Your task to perform on an android device: Search for seafood restaurants on Google Maps Image 0: 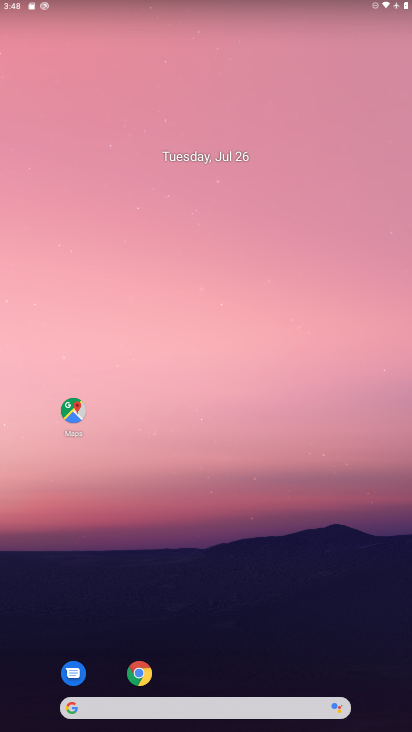
Step 0: click (77, 420)
Your task to perform on an android device: Search for seafood restaurants on Google Maps Image 1: 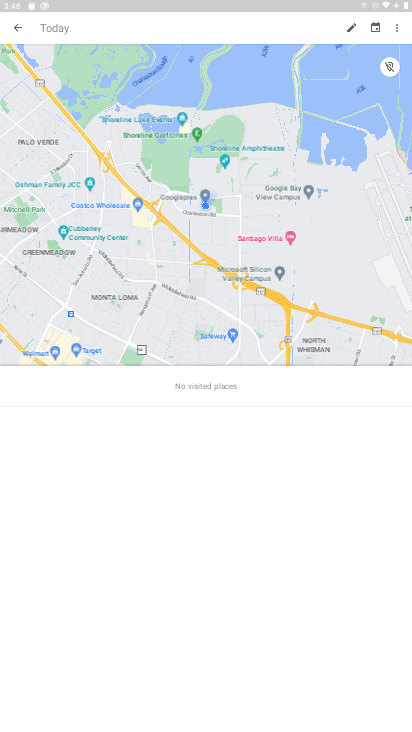
Step 1: click (20, 32)
Your task to perform on an android device: Search for seafood restaurants on Google Maps Image 2: 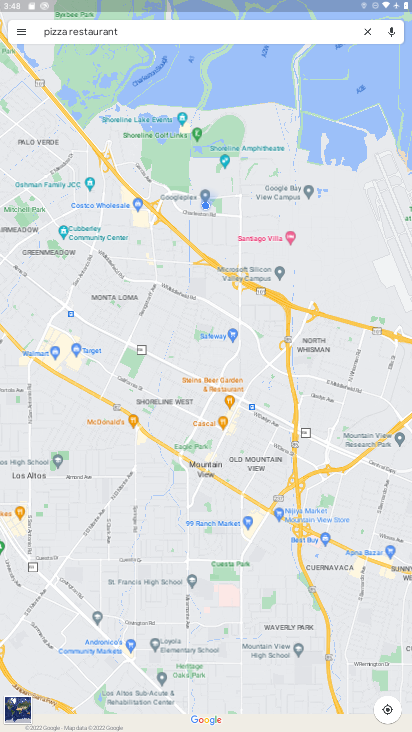
Step 2: click (117, 33)
Your task to perform on an android device: Search for seafood restaurants on Google Maps Image 3: 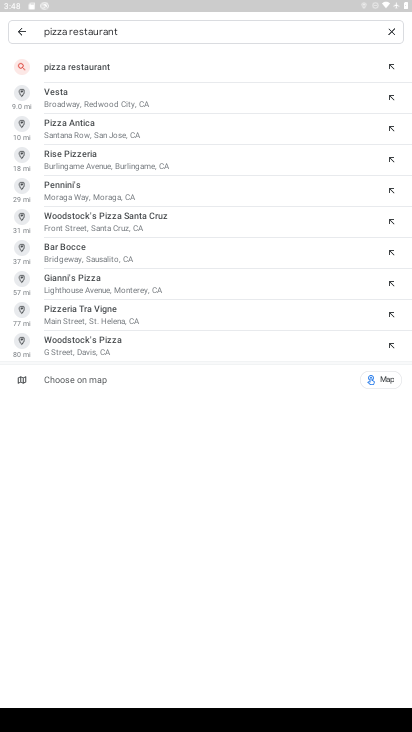
Step 3: click (399, 29)
Your task to perform on an android device: Search for seafood restaurants on Google Maps Image 4: 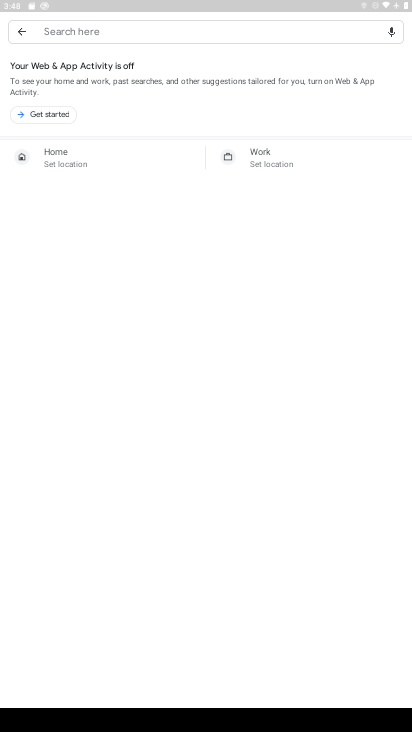
Step 4: click (78, 33)
Your task to perform on an android device: Search for seafood restaurants on Google Maps Image 5: 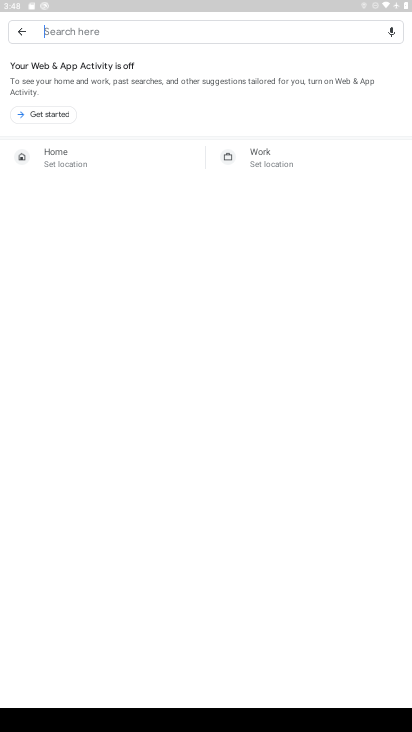
Step 5: type "seafood restaurants "
Your task to perform on an android device: Search for seafood restaurants on Google Maps Image 6: 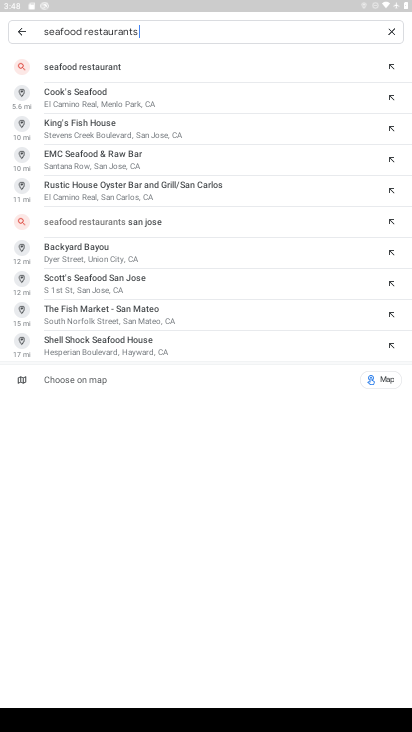
Step 6: click (90, 75)
Your task to perform on an android device: Search for seafood restaurants on Google Maps Image 7: 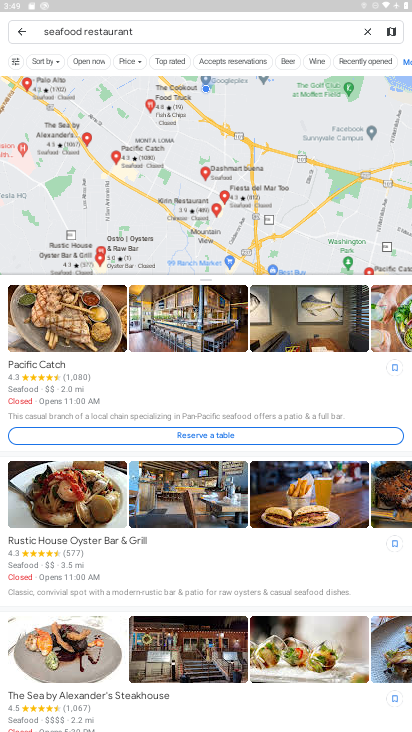
Step 7: task complete